Your task to perform on an android device: uninstall "Facebook Lite" Image 0: 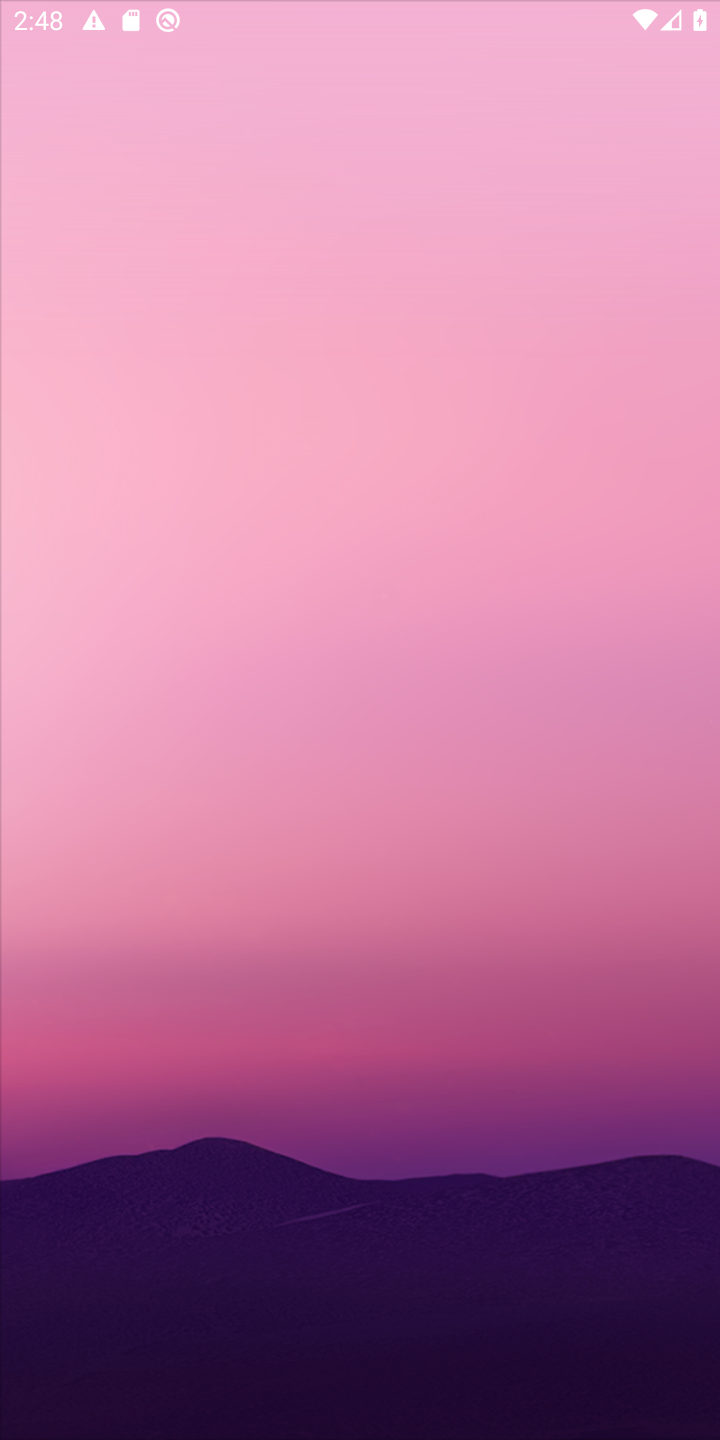
Step 0: click (586, 93)
Your task to perform on an android device: uninstall "Facebook Lite" Image 1: 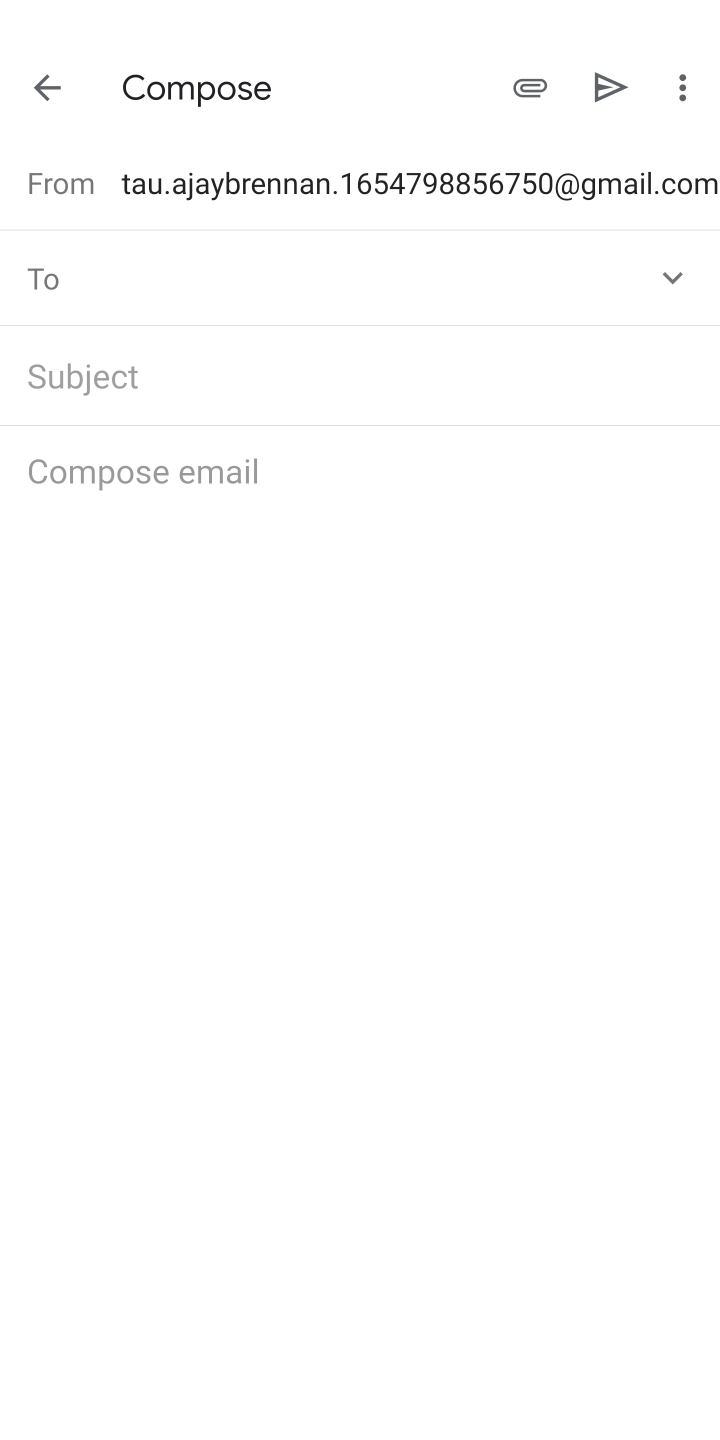
Step 1: click (576, 82)
Your task to perform on an android device: uninstall "Facebook Lite" Image 2: 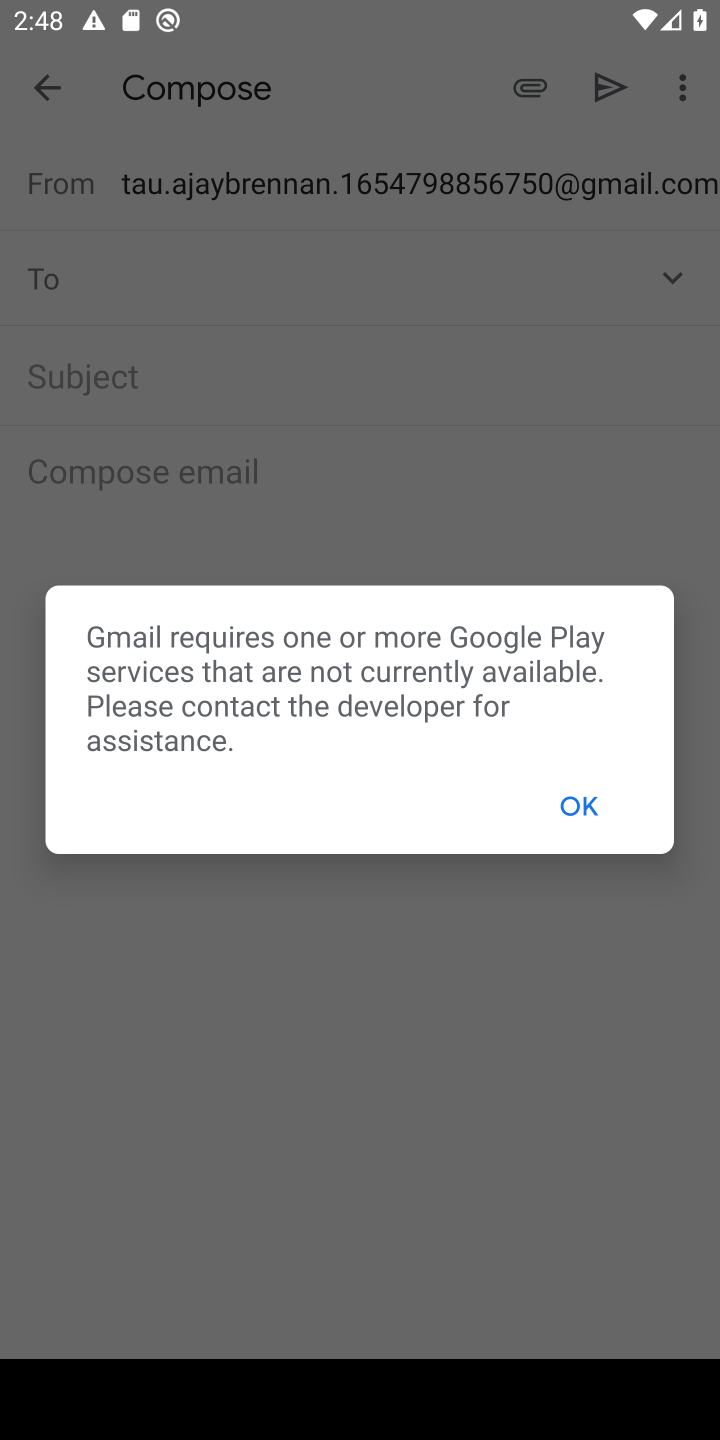
Step 2: press back button
Your task to perform on an android device: uninstall "Facebook Lite" Image 3: 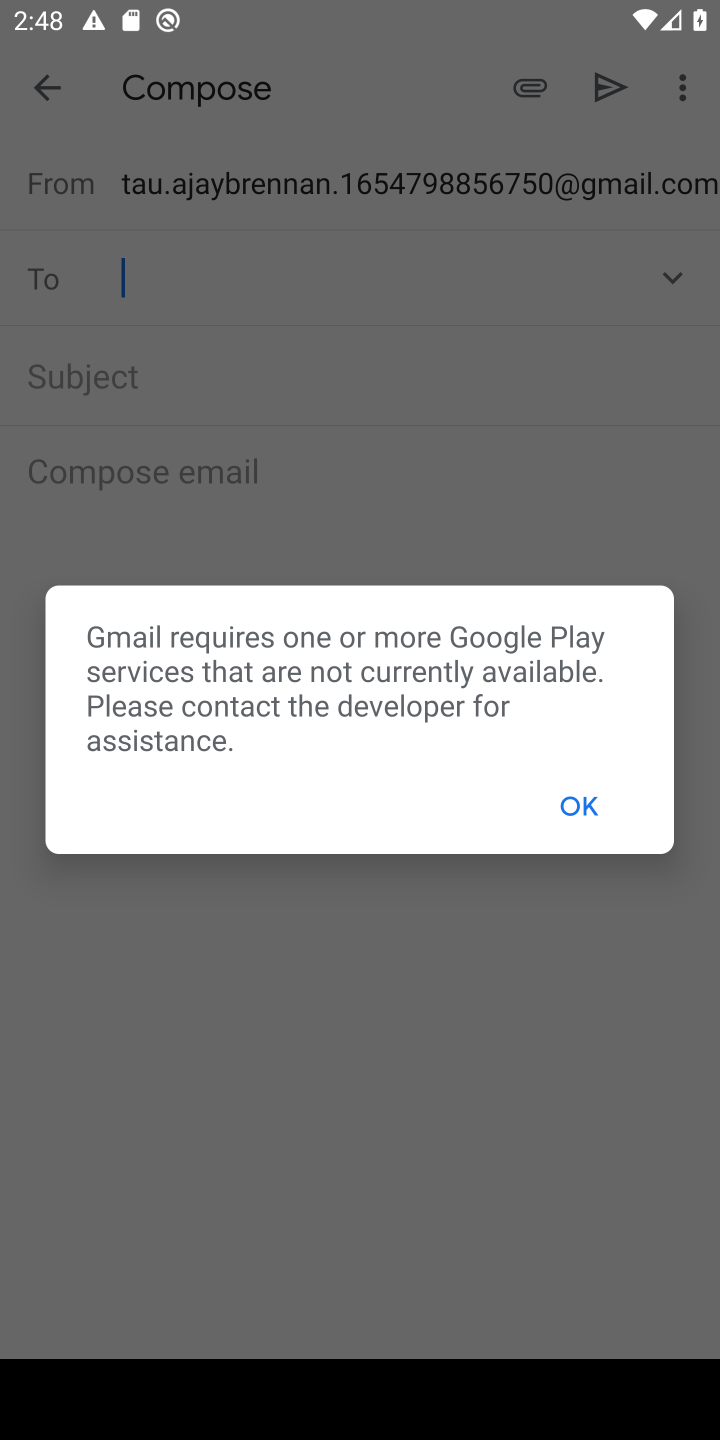
Step 3: press home button
Your task to perform on an android device: uninstall "Facebook Lite" Image 4: 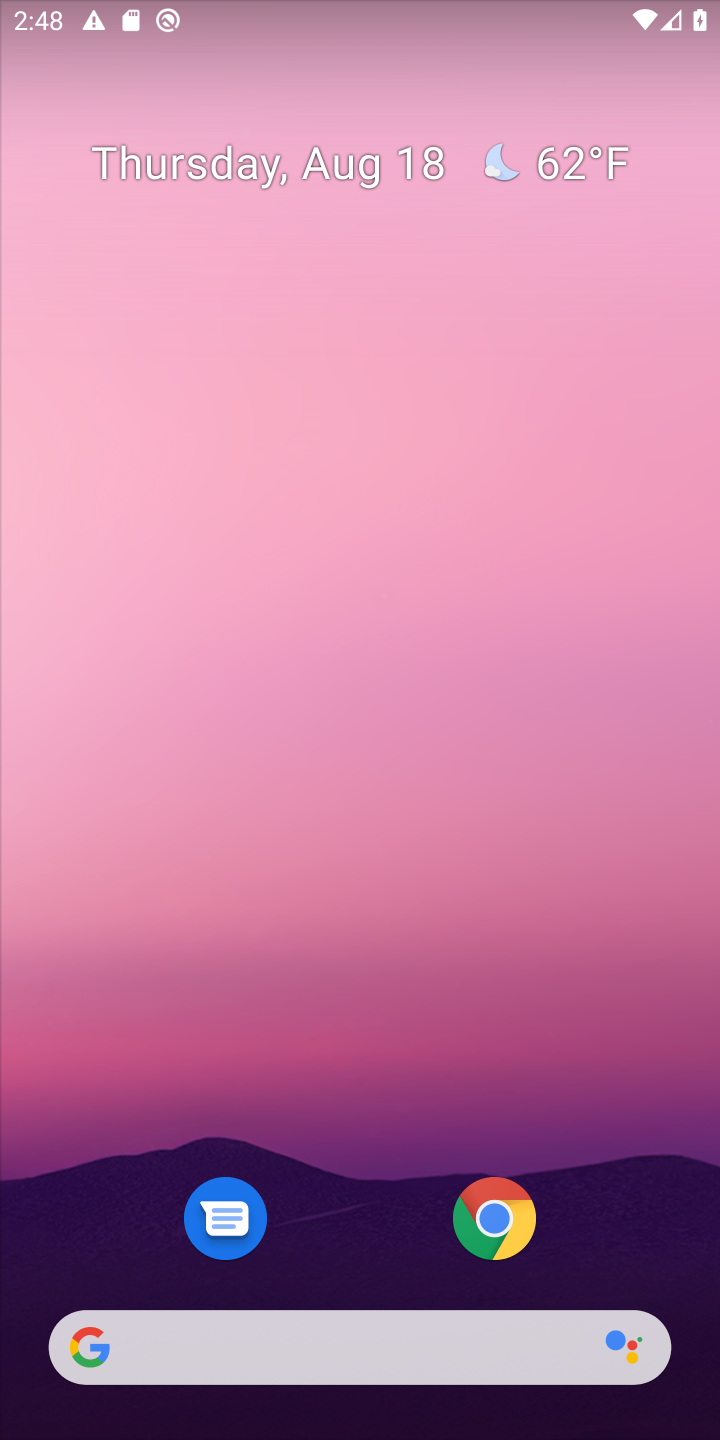
Step 4: drag from (418, 1118) to (382, 238)
Your task to perform on an android device: uninstall "Facebook Lite" Image 5: 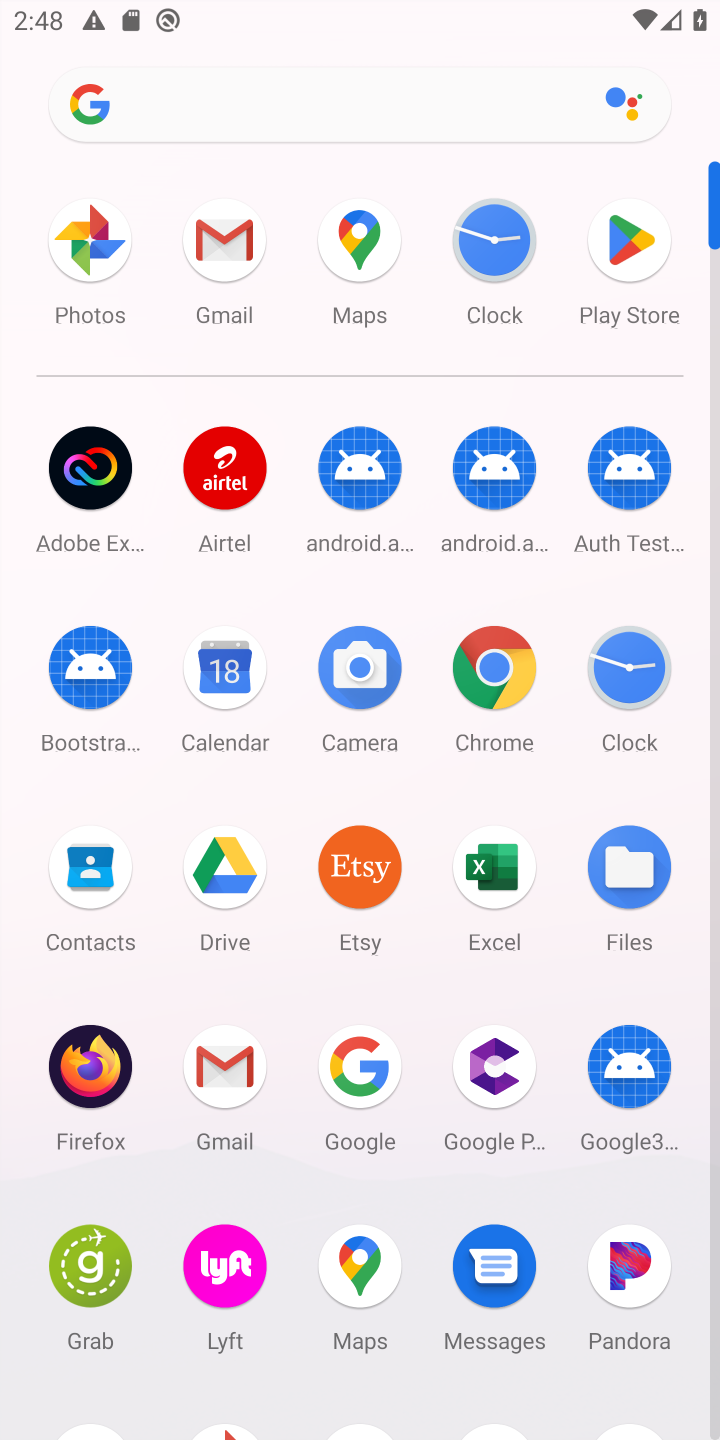
Step 5: click (621, 198)
Your task to perform on an android device: uninstall "Facebook Lite" Image 6: 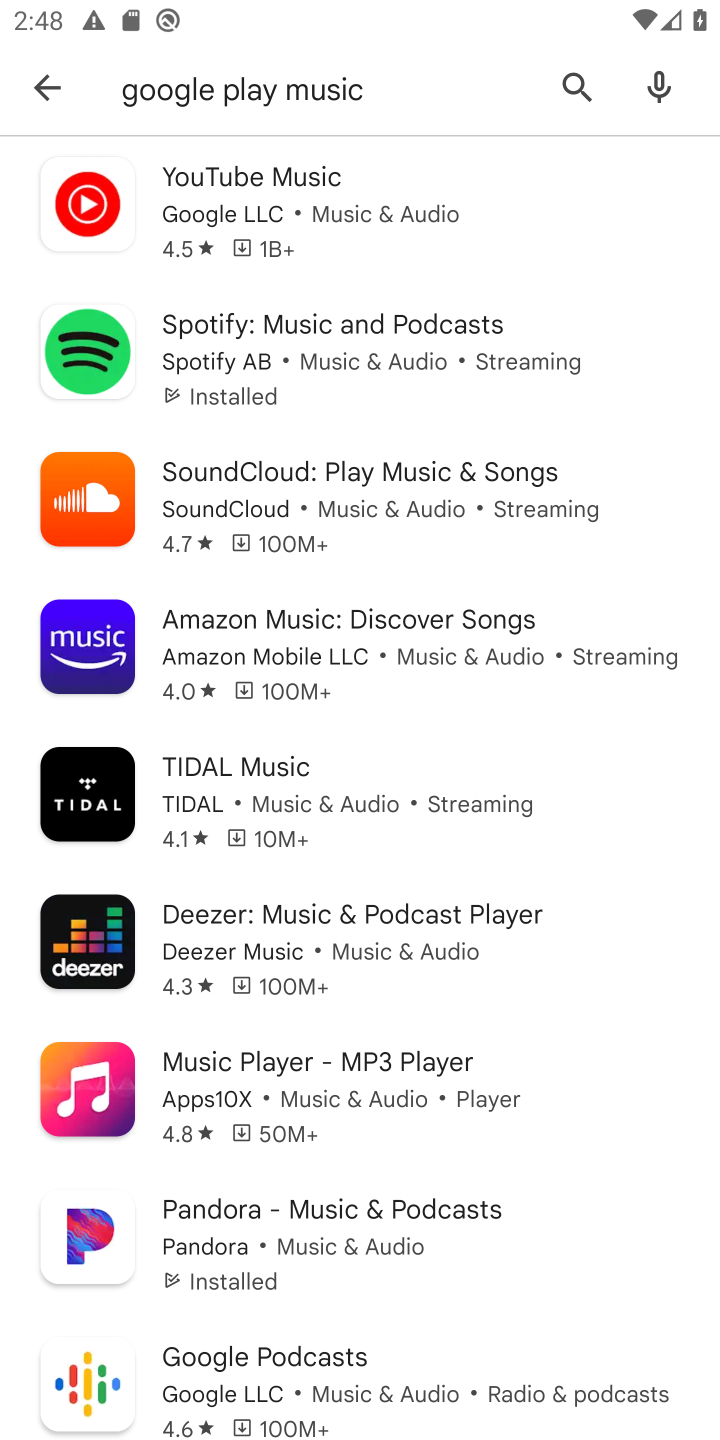
Step 6: click (556, 80)
Your task to perform on an android device: uninstall "Facebook Lite" Image 7: 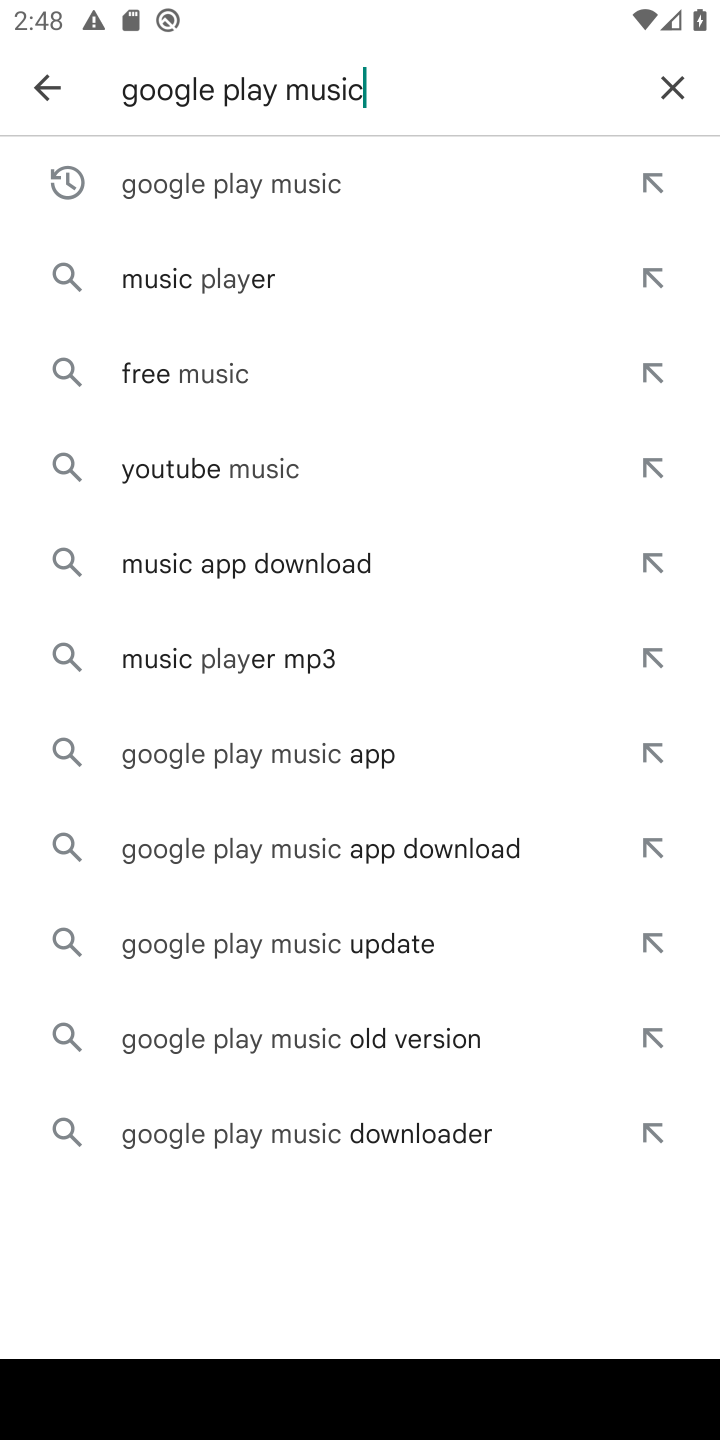
Step 7: click (675, 75)
Your task to perform on an android device: uninstall "Facebook Lite" Image 8: 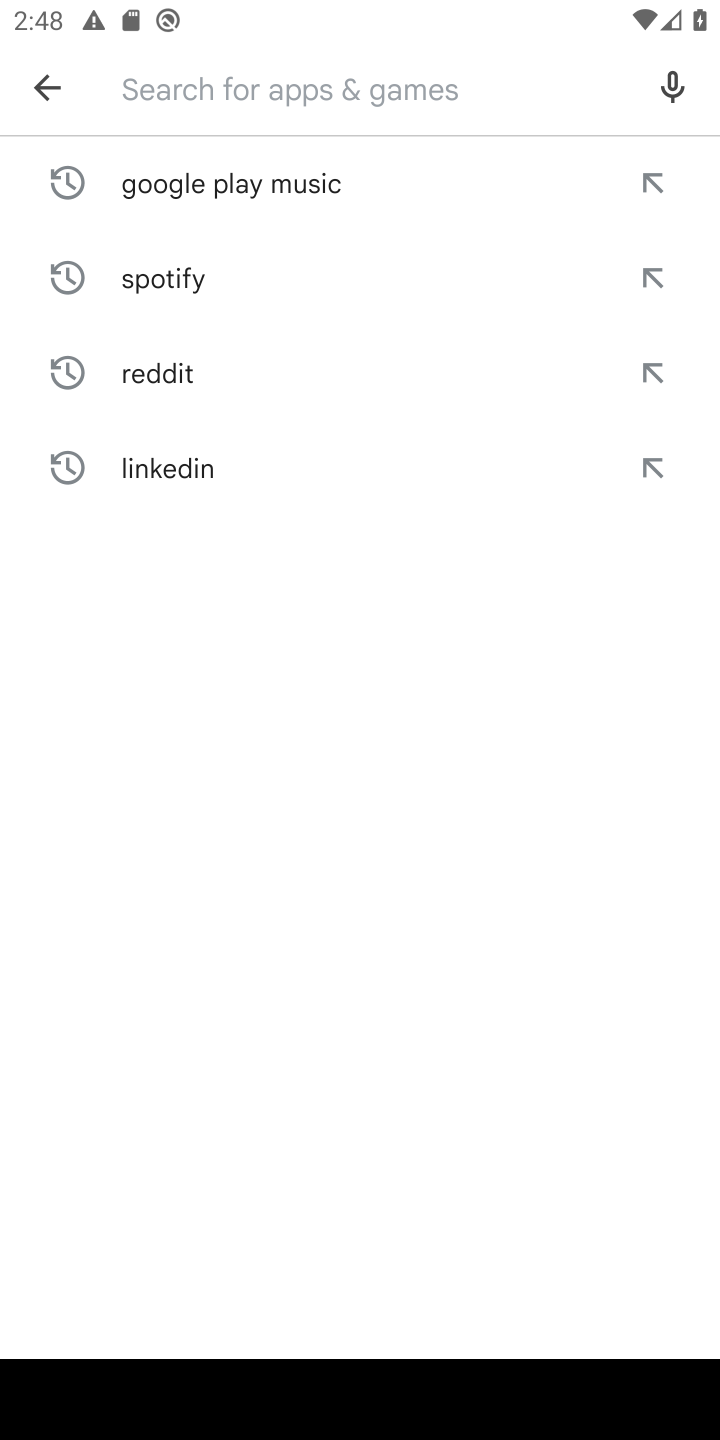
Step 8: type "Facebook Lite"
Your task to perform on an android device: uninstall "Facebook Lite" Image 9: 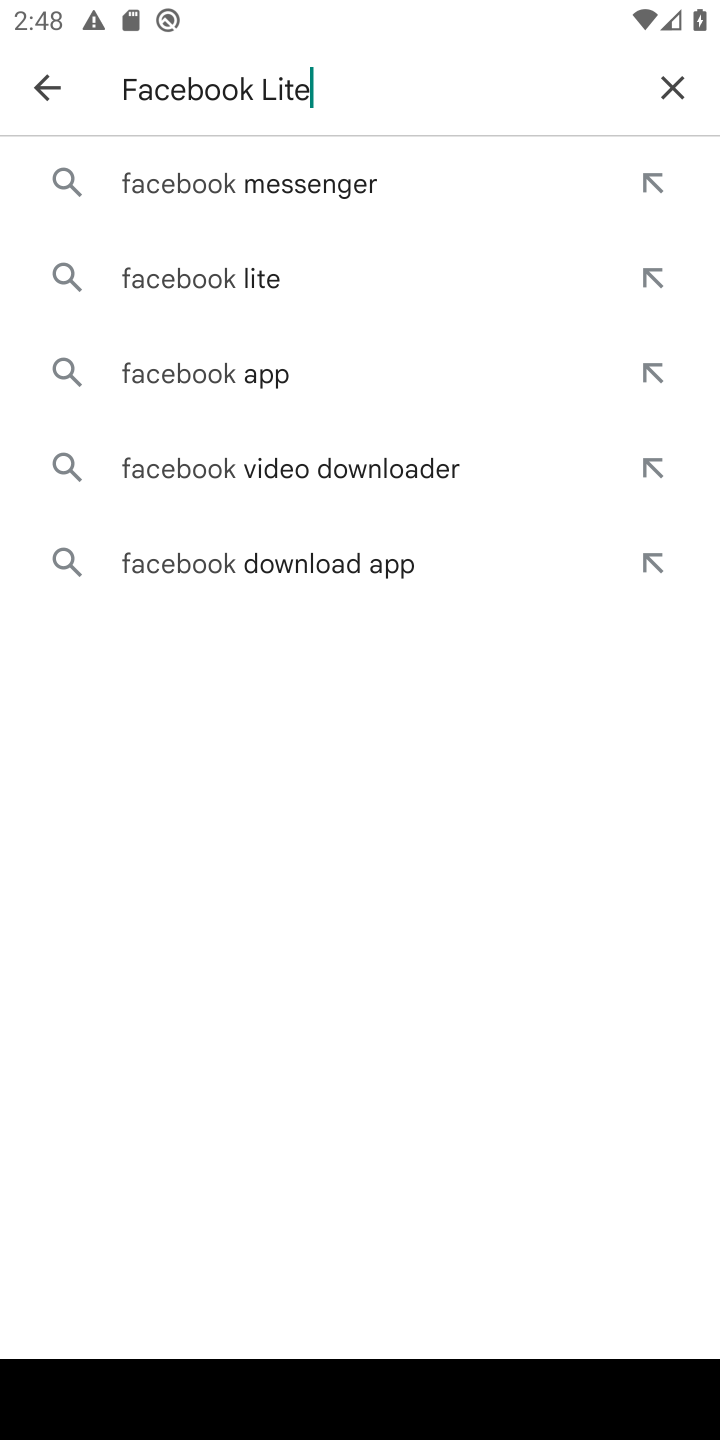
Step 9: type ""
Your task to perform on an android device: uninstall "Facebook Lite" Image 10: 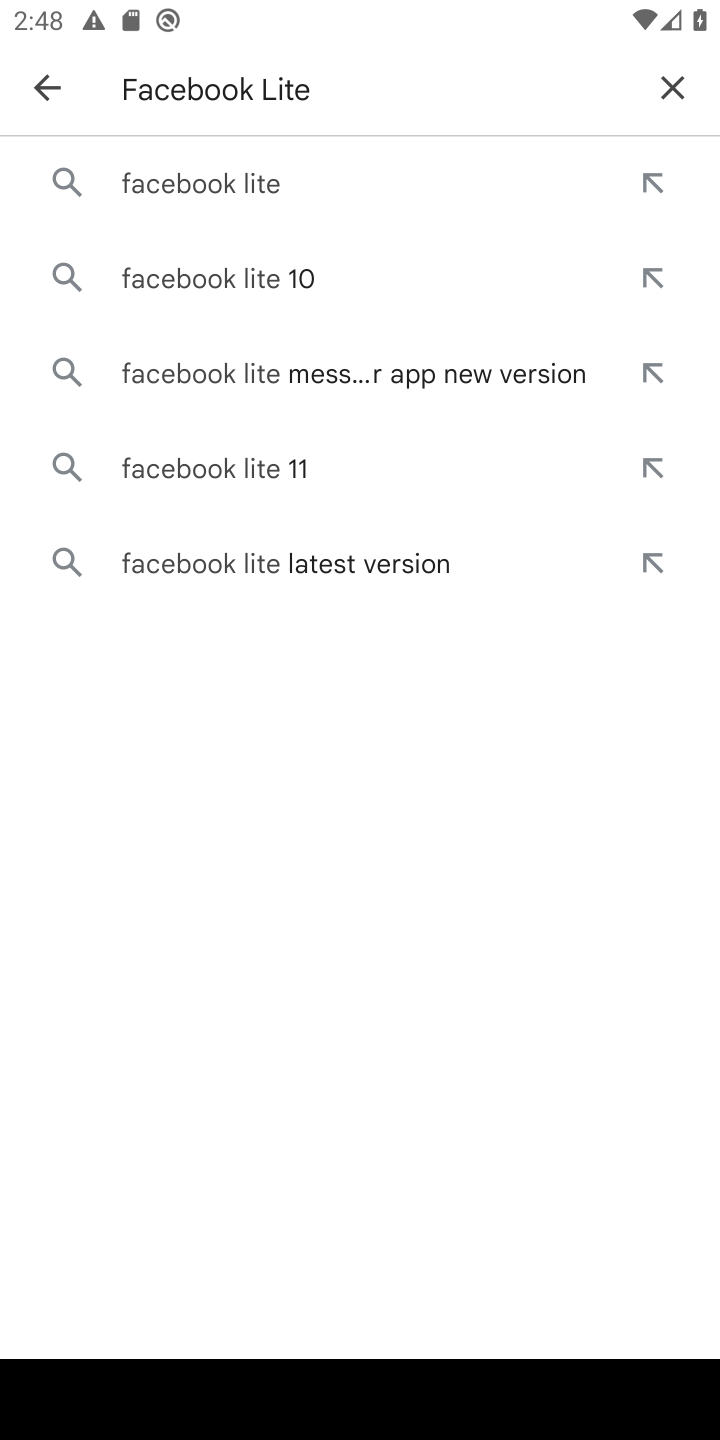
Step 10: click (295, 163)
Your task to perform on an android device: uninstall "Facebook Lite" Image 11: 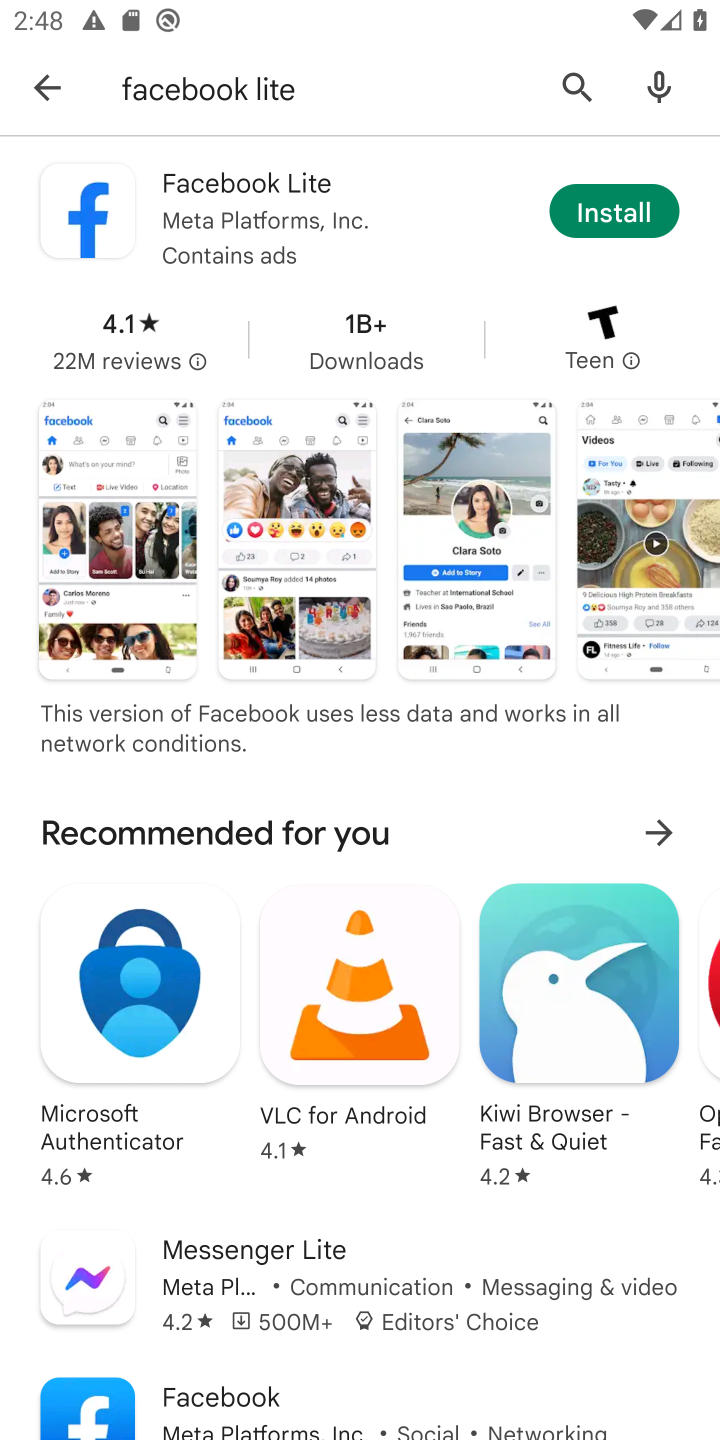
Step 11: task complete